Your task to perform on an android device: move an email to a new category in the gmail app Image 0: 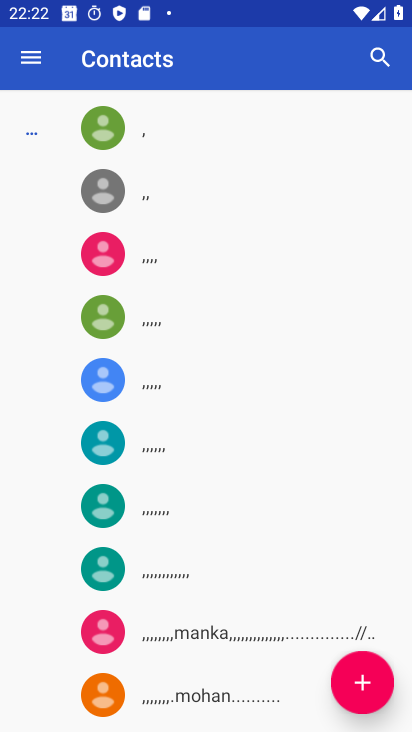
Step 0: press home button
Your task to perform on an android device: move an email to a new category in the gmail app Image 1: 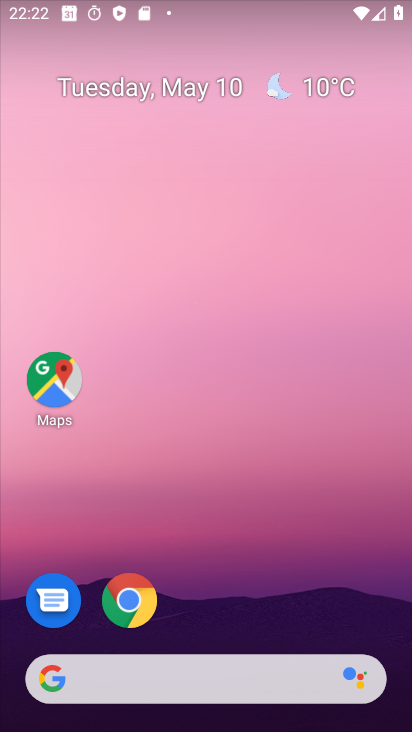
Step 1: drag from (281, 599) to (318, 68)
Your task to perform on an android device: move an email to a new category in the gmail app Image 2: 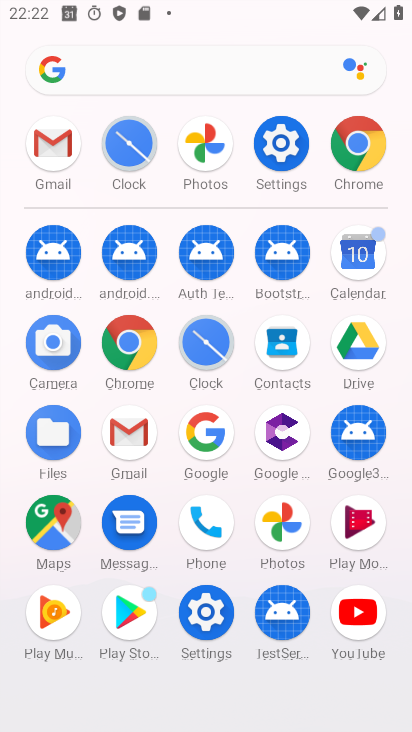
Step 2: click (100, 429)
Your task to perform on an android device: move an email to a new category in the gmail app Image 3: 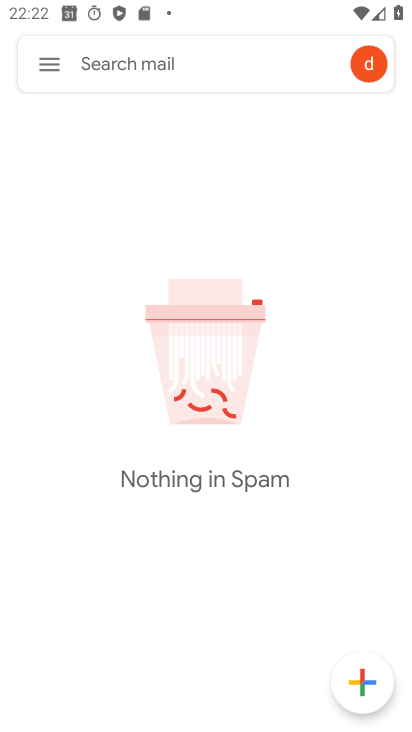
Step 3: click (62, 73)
Your task to perform on an android device: move an email to a new category in the gmail app Image 4: 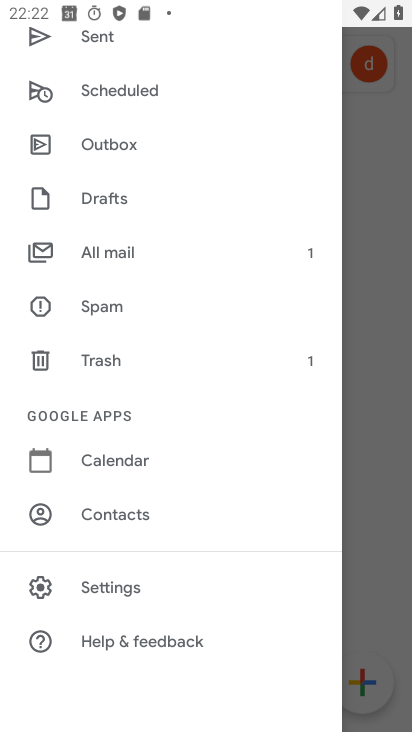
Step 4: click (96, 586)
Your task to perform on an android device: move an email to a new category in the gmail app Image 5: 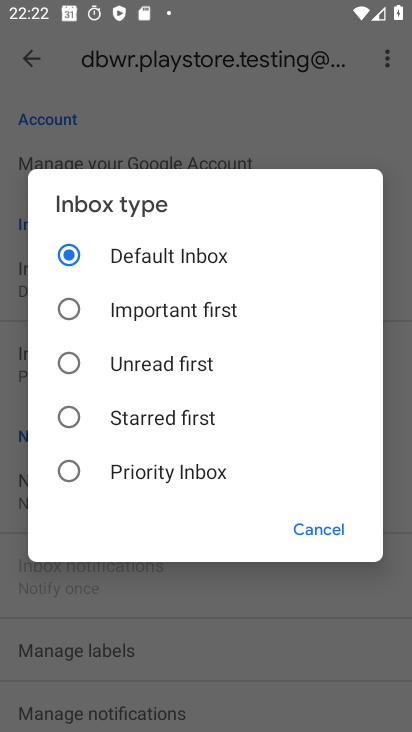
Step 5: click (337, 535)
Your task to perform on an android device: move an email to a new category in the gmail app Image 6: 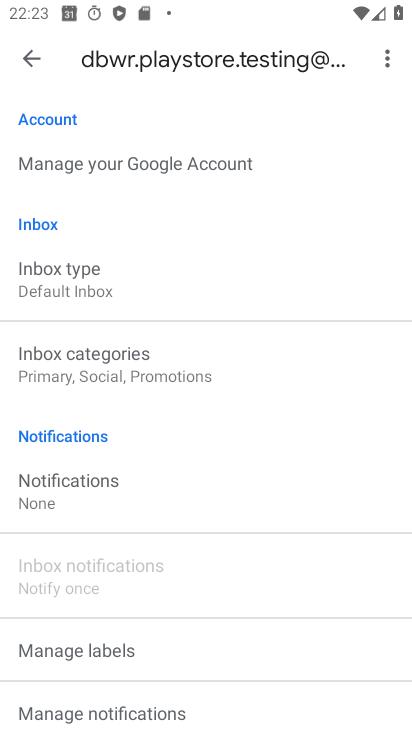
Step 6: click (43, 285)
Your task to perform on an android device: move an email to a new category in the gmail app Image 7: 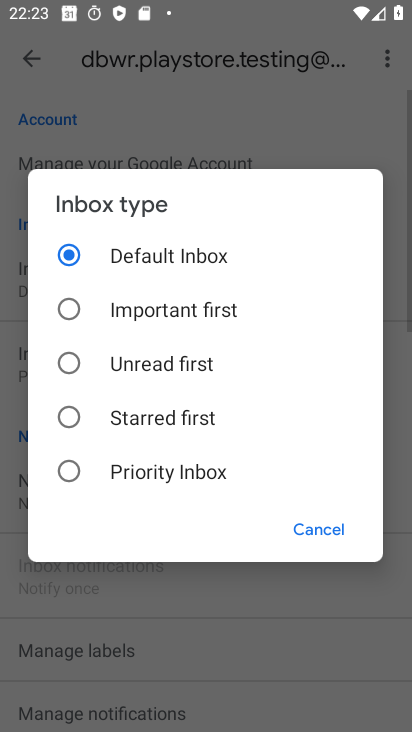
Step 7: click (23, 53)
Your task to perform on an android device: move an email to a new category in the gmail app Image 8: 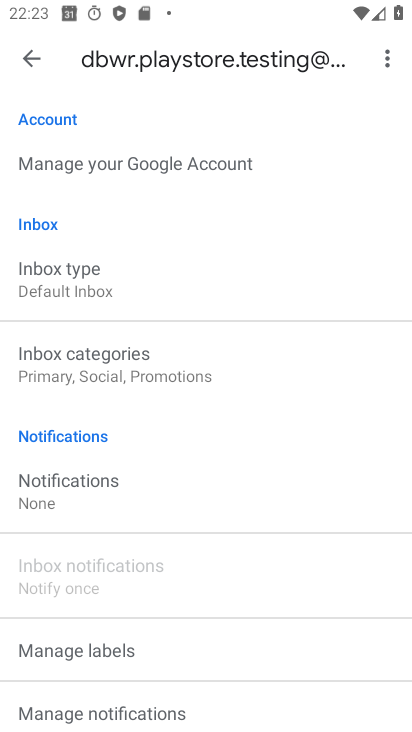
Step 8: click (23, 53)
Your task to perform on an android device: move an email to a new category in the gmail app Image 9: 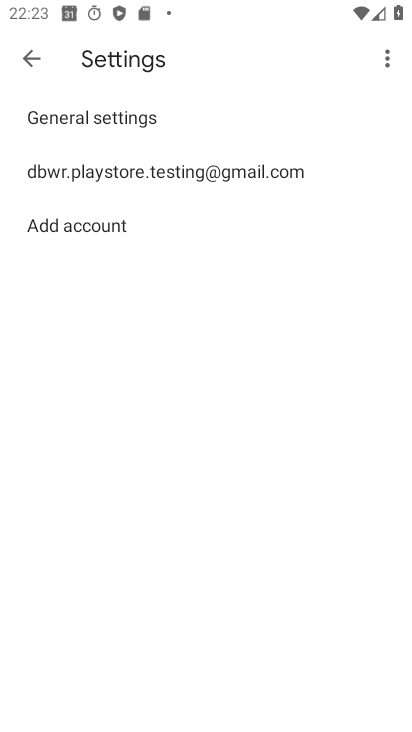
Step 9: click (23, 52)
Your task to perform on an android device: move an email to a new category in the gmail app Image 10: 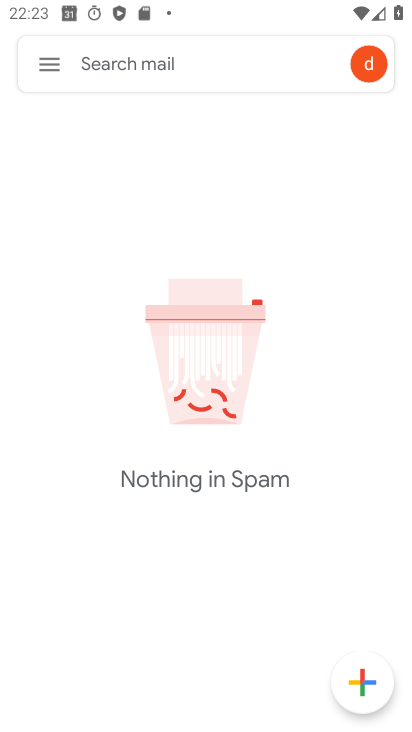
Step 10: click (34, 75)
Your task to perform on an android device: move an email to a new category in the gmail app Image 11: 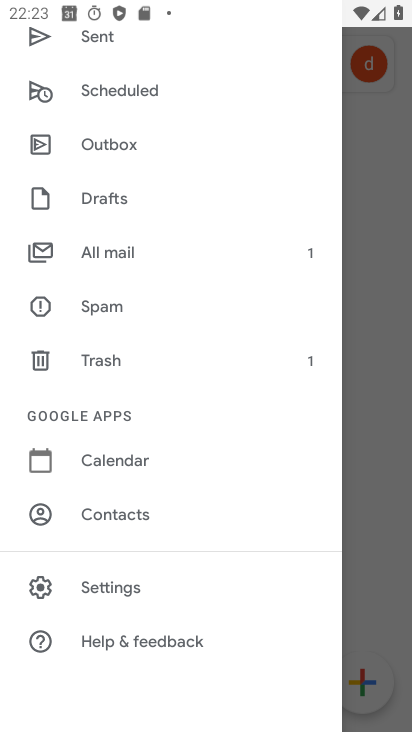
Step 11: drag from (160, 658) to (234, 200)
Your task to perform on an android device: move an email to a new category in the gmail app Image 12: 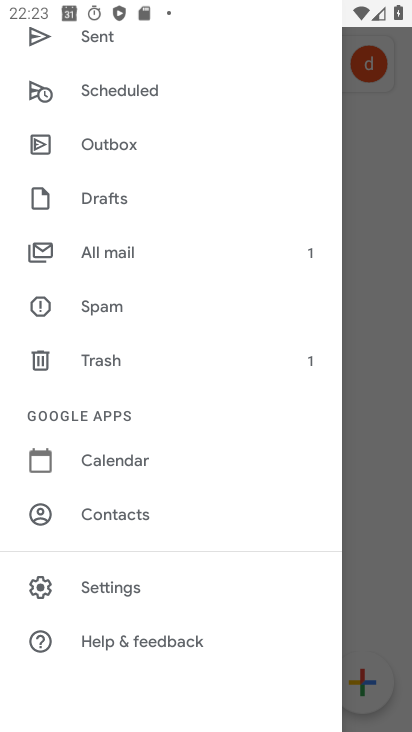
Step 12: drag from (177, 484) to (202, 731)
Your task to perform on an android device: move an email to a new category in the gmail app Image 13: 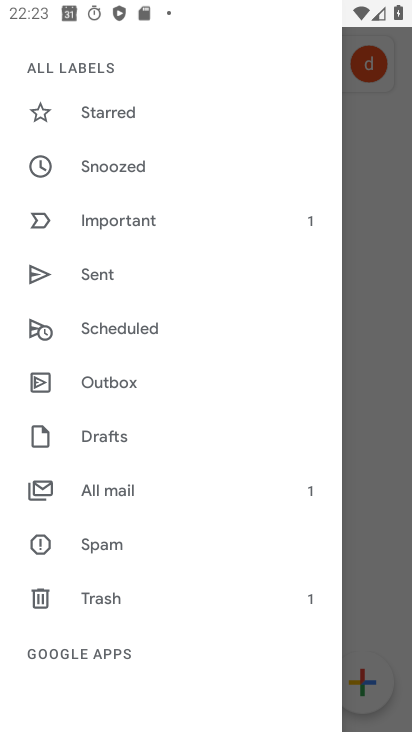
Step 13: click (111, 492)
Your task to perform on an android device: move an email to a new category in the gmail app Image 14: 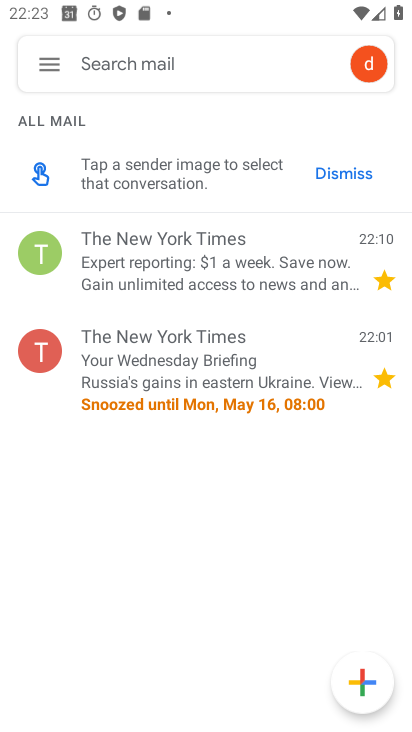
Step 14: click (212, 265)
Your task to perform on an android device: move an email to a new category in the gmail app Image 15: 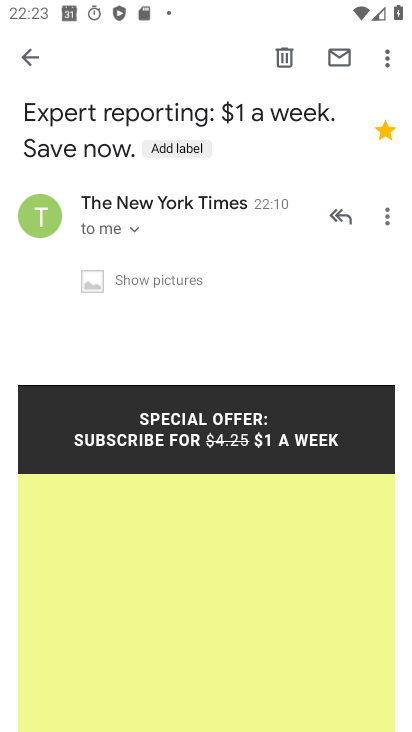
Step 15: click (398, 52)
Your task to perform on an android device: move an email to a new category in the gmail app Image 16: 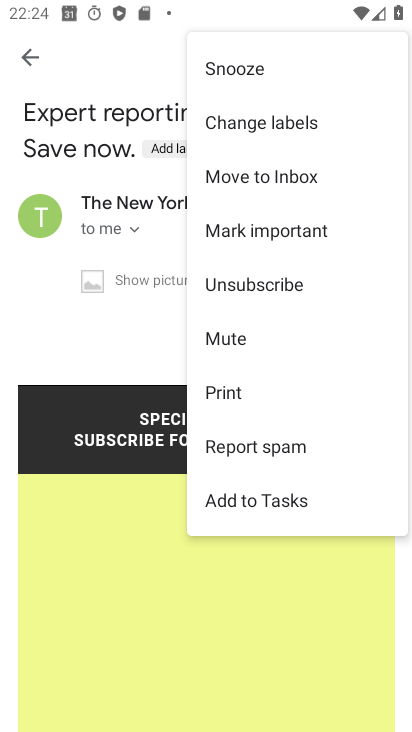
Step 16: click (320, 127)
Your task to perform on an android device: move an email to a new category in the gmail app Image 17: 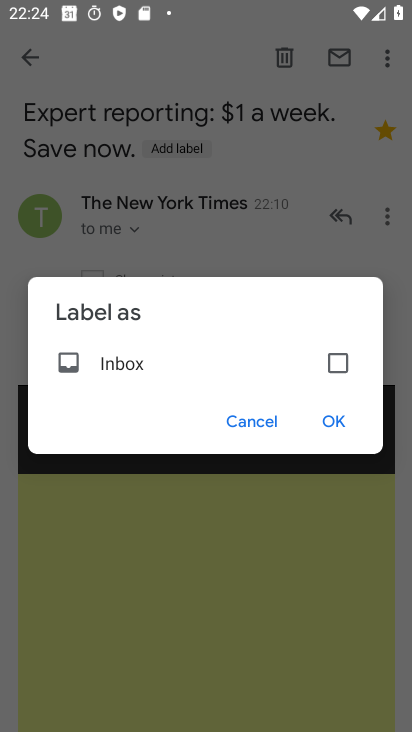
Step 17: click (333, 368)
Your task to perform on an android device: move an email to a new category in the gmail app Image 18: 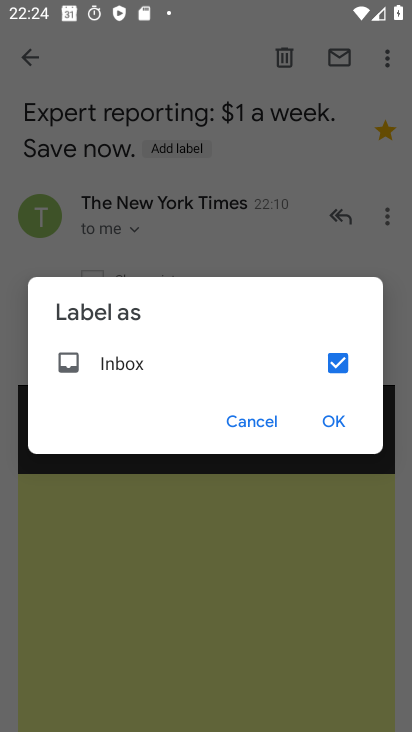
Step 18: click (347, 422)
Your task to perform on an android device: move an email to a new category in the gmail app Image 19: 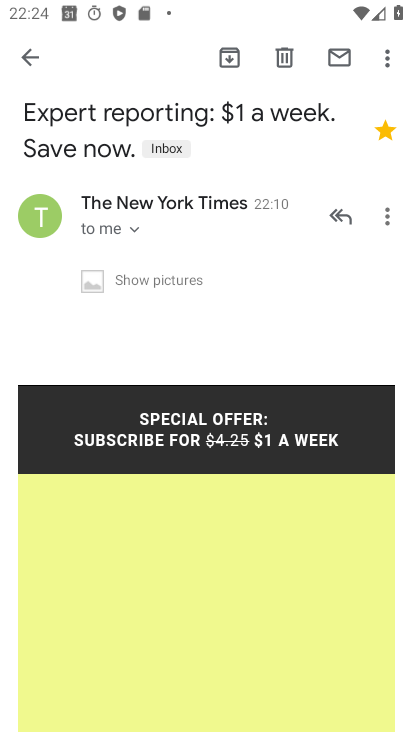
Step 19: task complete